Your task to perform on an android device: Open Google Maps Image 0: 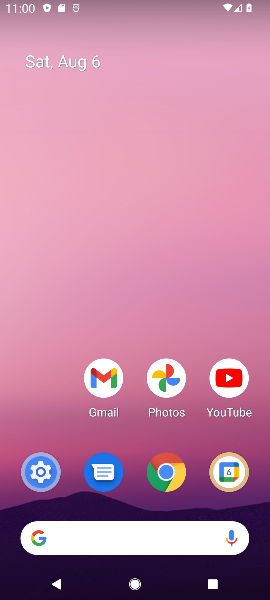
Step 0: drag from (198, 553) to (155, 329)
Your task to perform on an android device: Open Google Maps Image 1: 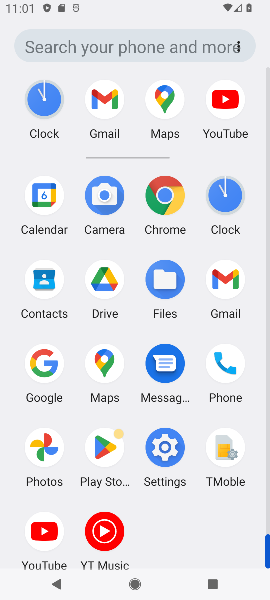
Step 1: click (46, 370)
Your task to perform on an android device: Open Google Maps Image 2: 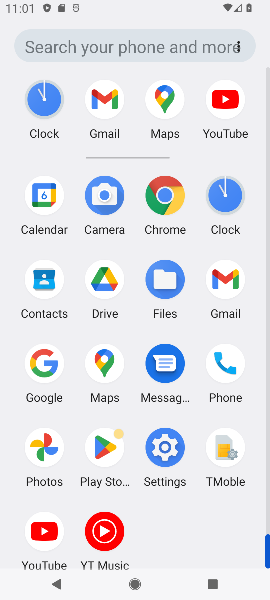
Step 2: click (46, 370)
Your task to perform on an android device: Open Google Maps Image 3: 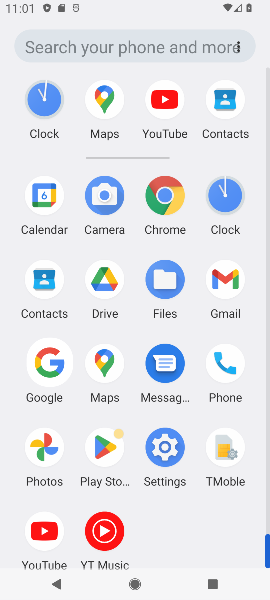
Step 3: click (113, 360)
Your task to perform on an android device: Open Google Maps Image 4: 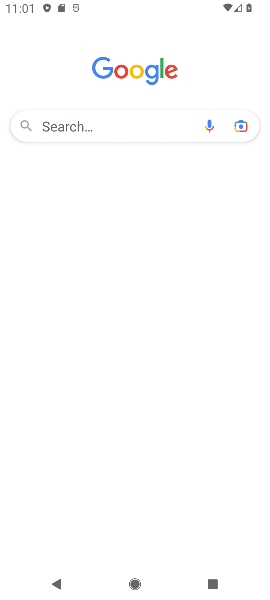
Step 4: click (108, 362)
Your task to perform on an android device: Open Google Maps Image 5: 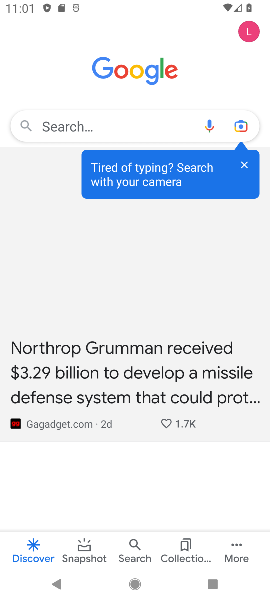
Step 5: press back button
Your task to perform on an android device: Open Google Maps Image 6: 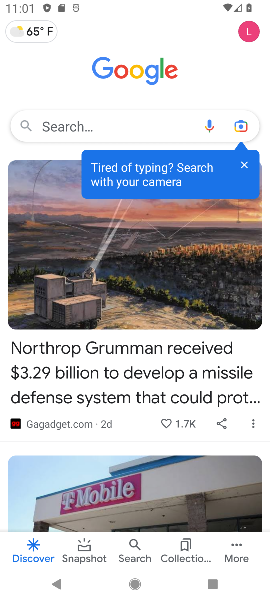
Step 6: press back button
Your task to perform on an android device: Open Google Maps Image 7: 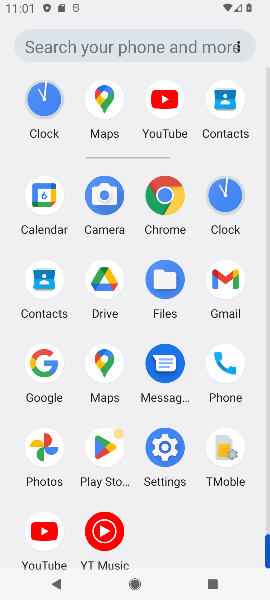
Step 7: click (104, 368)
Your task to perform on an android device: Open Google Maps Image 8: 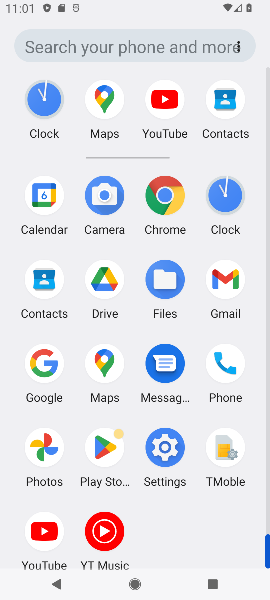
Step 8: click (103, 368)
Your task to perform on an android device: Open Google Maps Image 9: 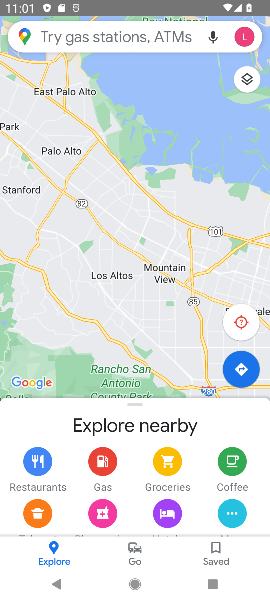
Step 9: task complete